Your task to perform on an android device: find photos in the google photos app Image 0: 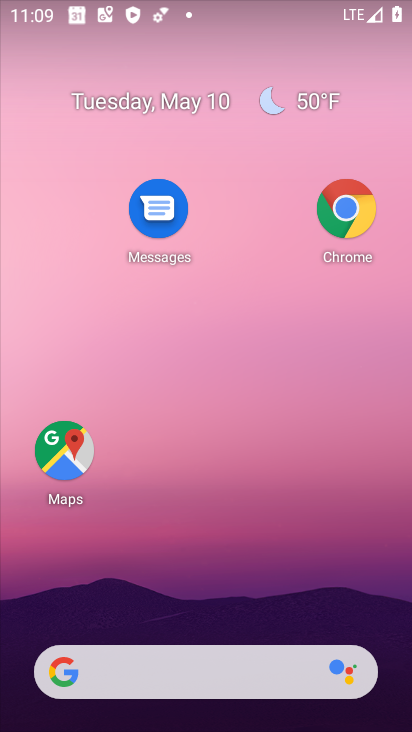
Step 0: drag from (214, 639) to (141, 25)
Your task to perform on an android device: find photos in the google photos app Image 1: 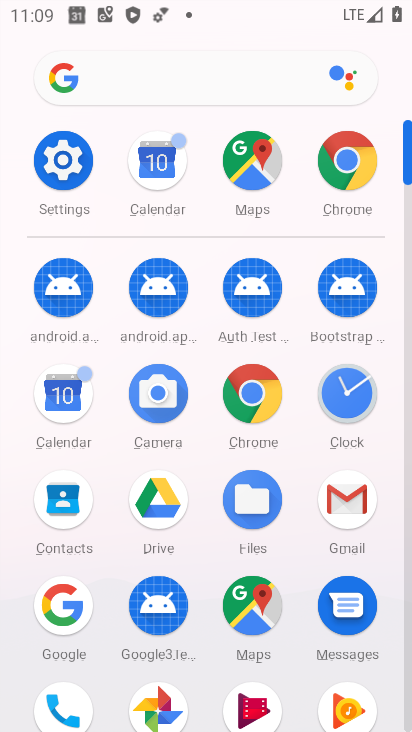
Step 1: click (140, 692)
Your task to perform on an android device: find photos in the google photos app Image 2: 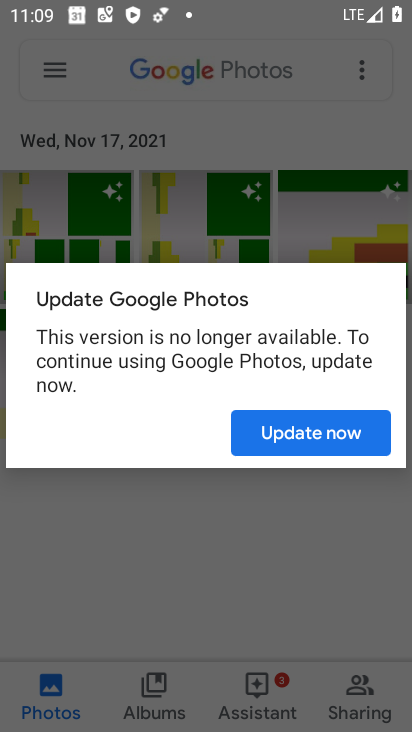
Step 2: click (334, 435)
Your task to perform on an android device: find photos in the google photos app Image 3: 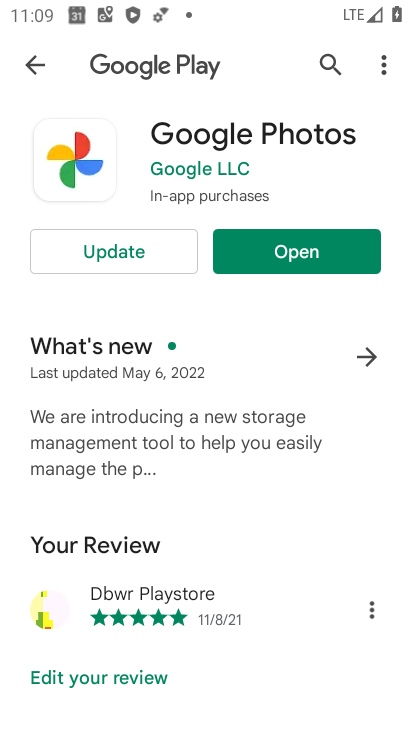
Step 3: click (264, 253)
Your task to perform on an android device: find photos in the google photos app Image 4: 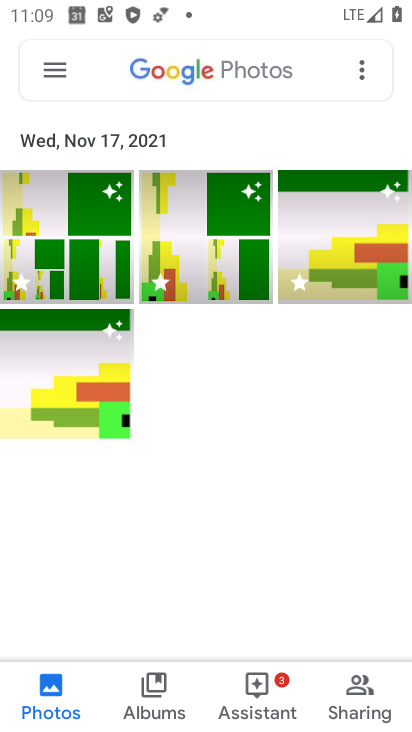
Step 4: task complete